Your task to perform on an android device: see creations saved in the google photos Image 0: 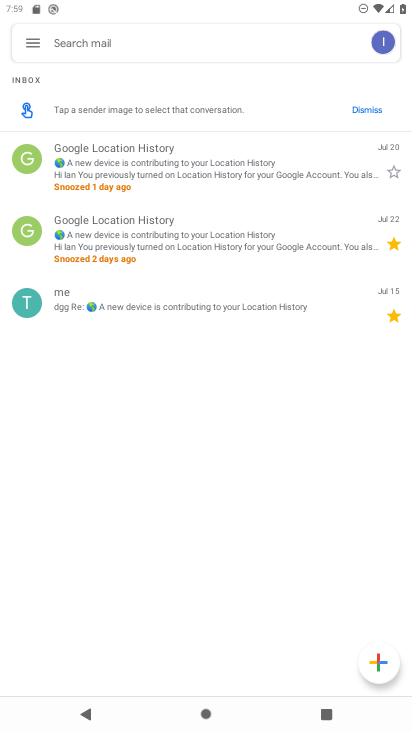
Step 0: press home button
Your task to perform on an android device: see creations saved in the google photos Image 1: 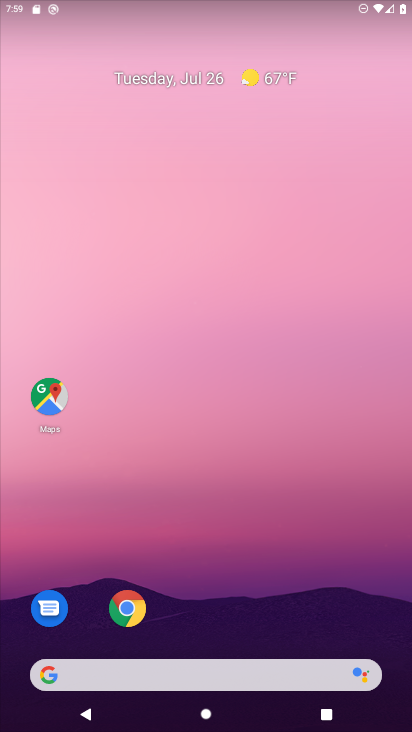
Step 1: drag from (201, 636) to (217, 79)
Your task to perform on an android device: see creations saved in the google photos Image 2: 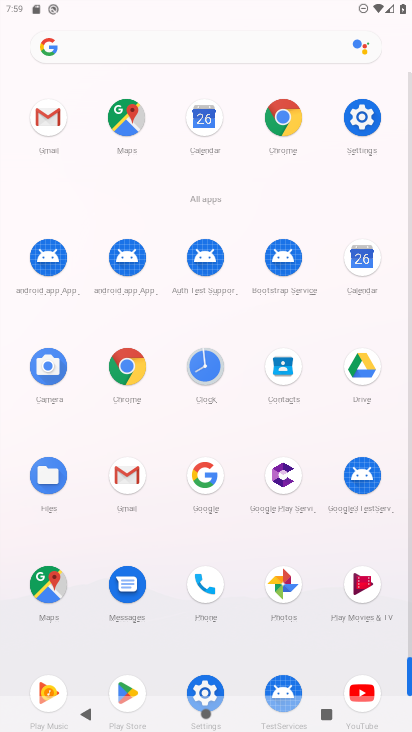
Step 2: click (289, 595)
Your task to perform on an android device: see creations saved in the google photos Image 3: 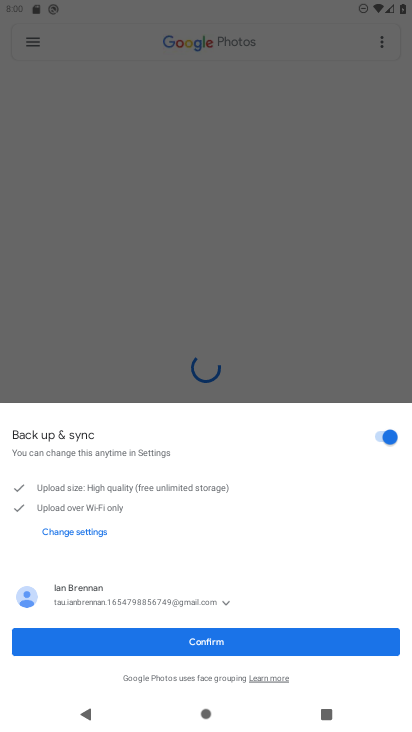
Step 3: click (217, 645)
Your task to perform on an android device: see creations saved in the google photos Image 4: 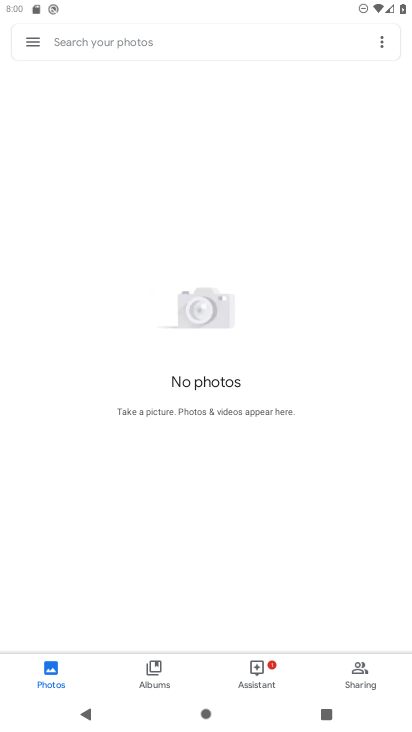
Step 4: click (158, 44)
Your task to perform on an android device: see creations saved in the google photos Image 5: 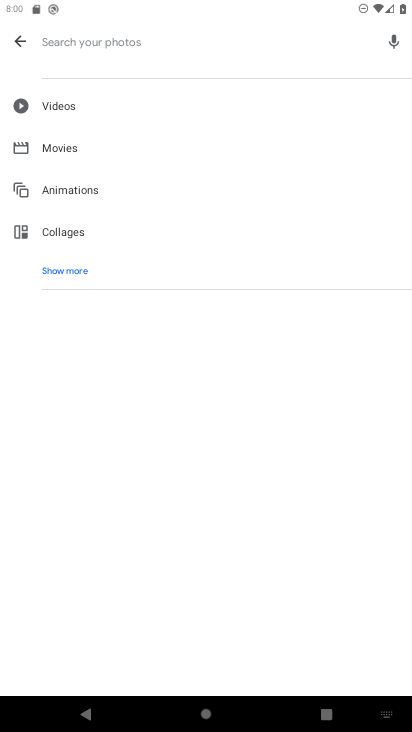
Step 5: type "creations"
Your task to perform on an android device: see creations saved in the google photos Image 6: 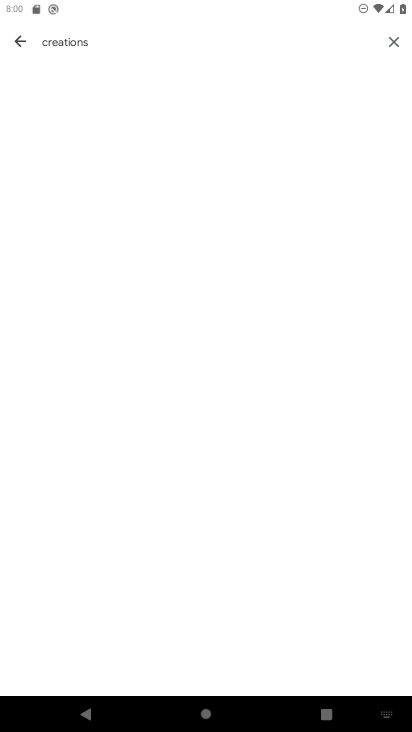
Step 6: task complete